Your task to perform on an android device: turn off wifi Image 0: 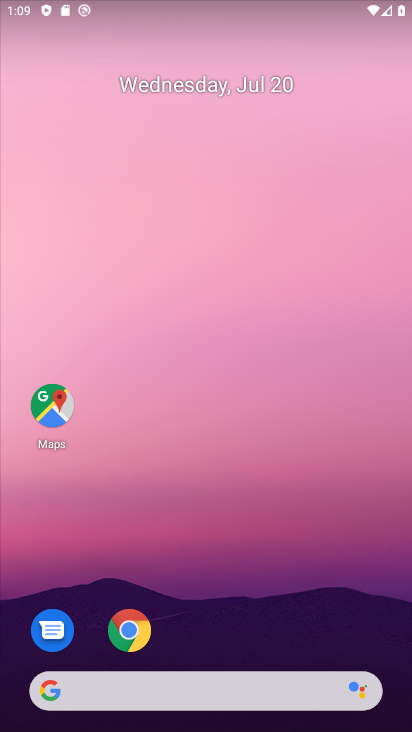
Step 0: drag from (307, 656) to (219, 136)
Your task to perform on an android device: turn off wifi Image 1: 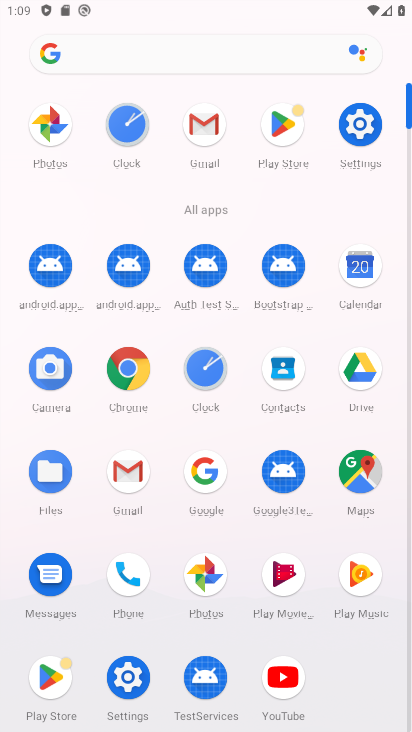
Step 1: click (351, 128)
Your task to perform on an android device: turn off wifi Image 2: 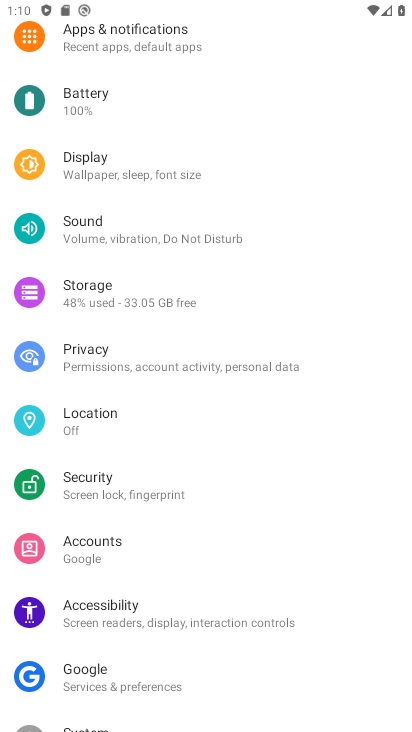
Step 2: drag from (217, 158) to (234, 730)
Your task to perform on an android device: turn off wifi Image 3: 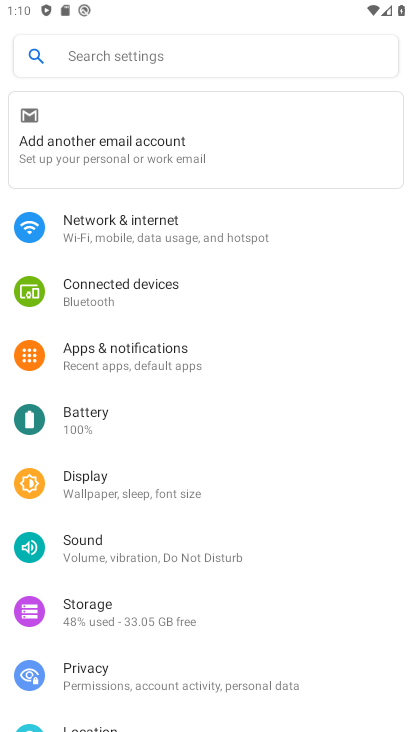
Step 3: click (174, 221)
Your task to perform on an android device: turn off wifi Image 4: 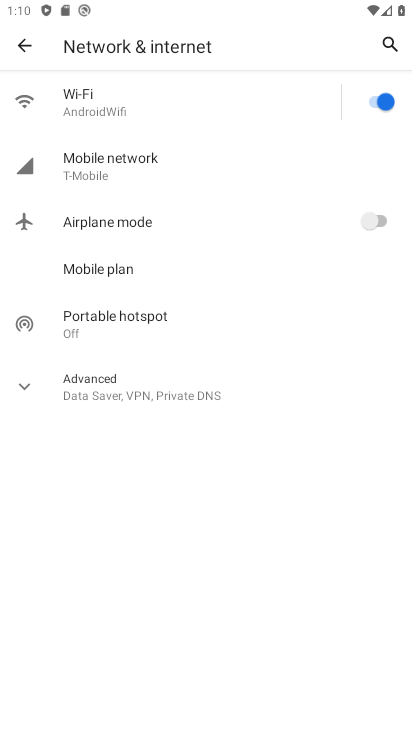
Step 4: click (384, 95)
Your task to perform on an android device: turn off wifi Image 5: 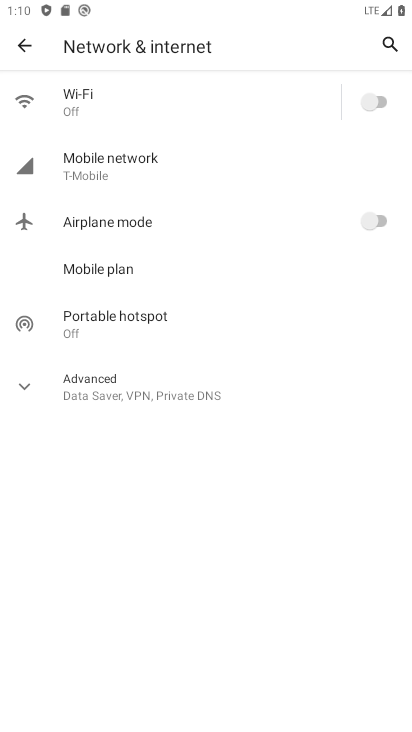
Step 5: task complete